Your task to perform on an android device: Open Google Chrome and open the bookmarks view Image 0: 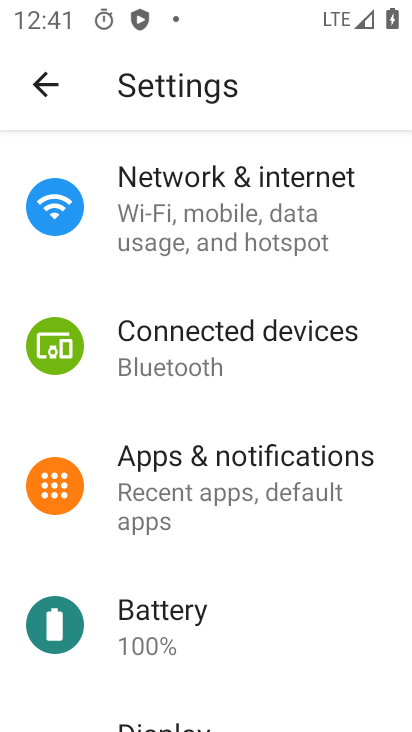
Step 0: press home button
Your task to perform on an android device: Open Google Chrome and open the bookmarks view Image 1: 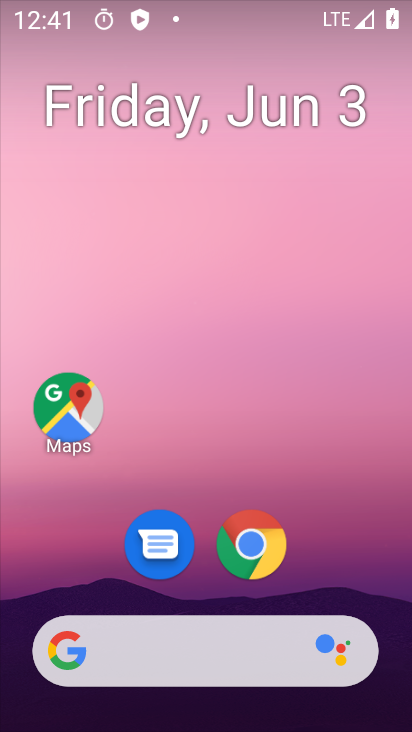
Step 1: click (252, 548)
Your task to perform on an android device: Open Google Chrome and open the bookmarks view Image 2: 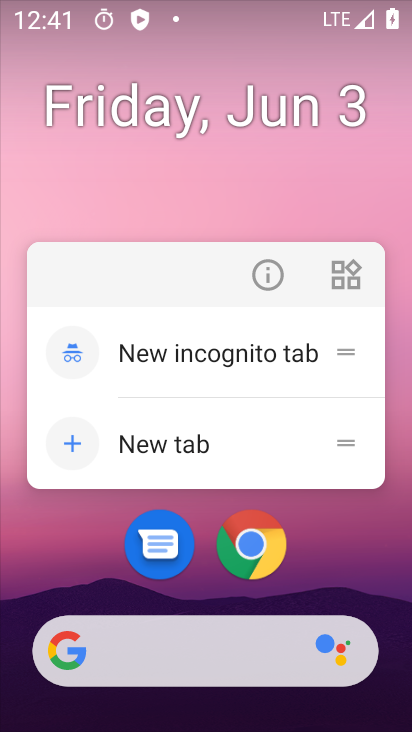
Step 2: click (256, 566)
Your task to perform on an android device: Open Google Chrome and open the bookmarks view Image 3: 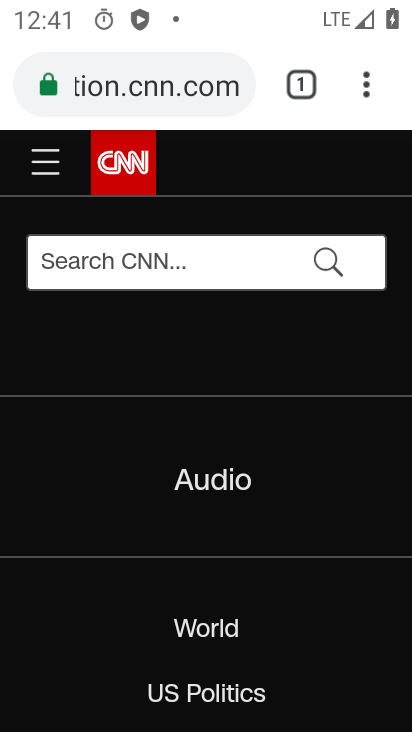
Step 3: click (369, 84)
Your task to perform on an android device: Open Google Chrome and open the bookmarks view Image 4: 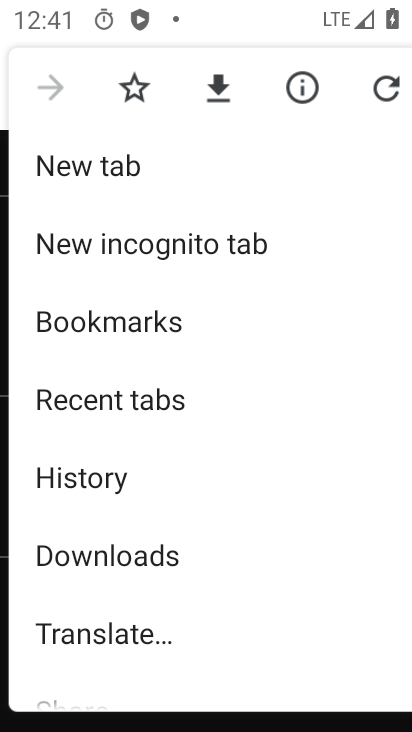
Step 4: click (127, 335)
Your task to perform on an android device: Open Google Chrome and open the bookmarks view Image 5: 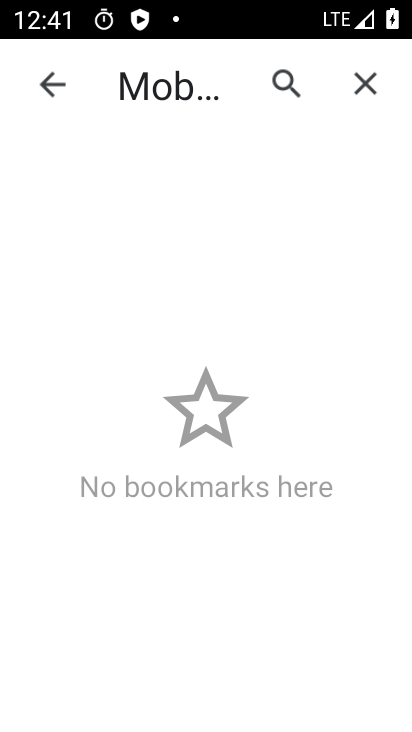
Step 5: task complete